Your task to perform on an android device: Open calendar and show me the third week of next month Image 0: 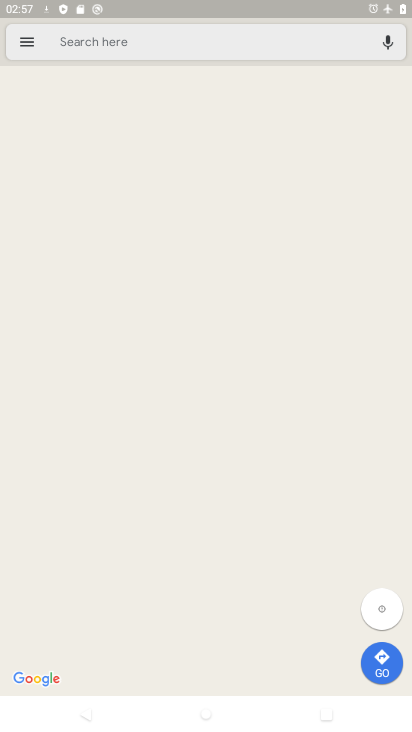
Step 0: press home button
Your task to perform on an android device: Open calendar and show me the third week of next month Image 1: 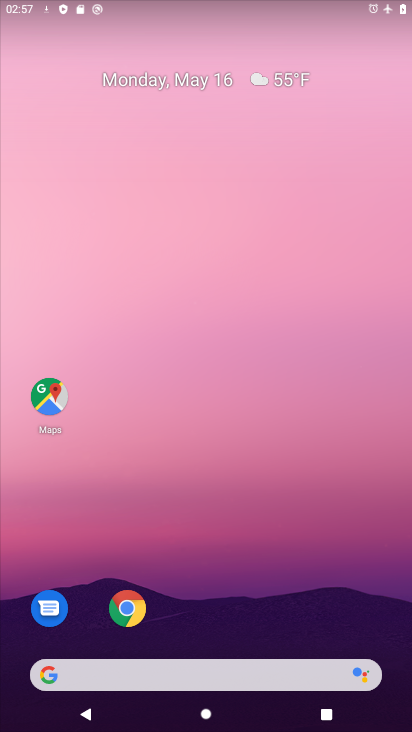
Step 1: drag from (225, 569) to (196, 185)
Your task to perform on an android device: Open calendar and show me the third week of next month Image 2: 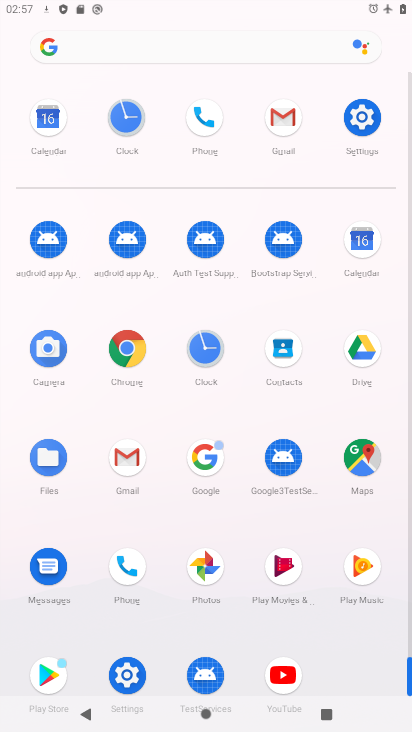
Step 2: click (351, 239)
Your task to perform on an android device: Open calendar and show me the third week of next month Image 3: 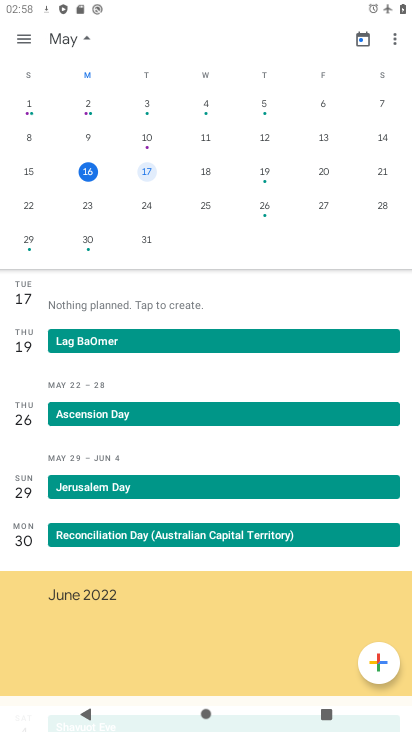
Step 3: drag from (323, 161) to (57, 176)
Your task to perform on an android device: Open calendar and show me the third week of next month Image 4: 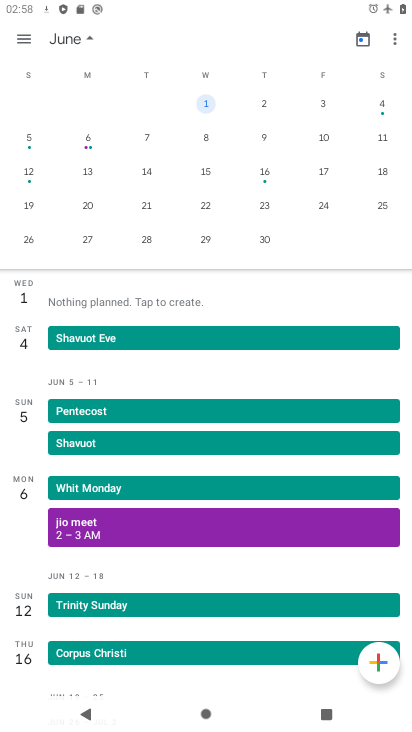
Step 4: click (24, 178)
Your task to perform on an android device: Open calendar and show me the third week of next month Image 5: 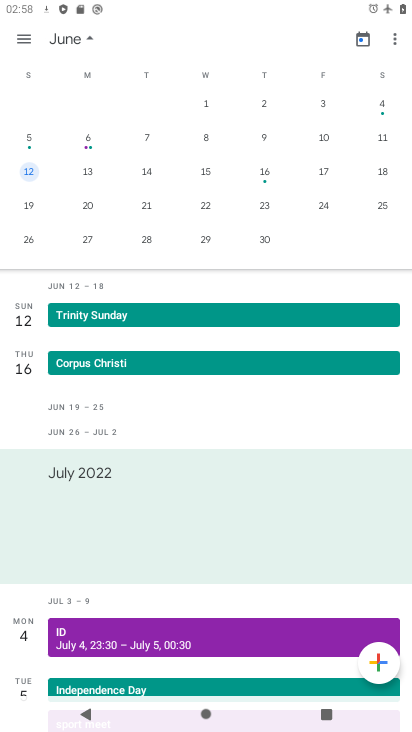
Step 5: task complete